Your task to perform on an android device: toggle notifications settings in the gmail app Image 0: 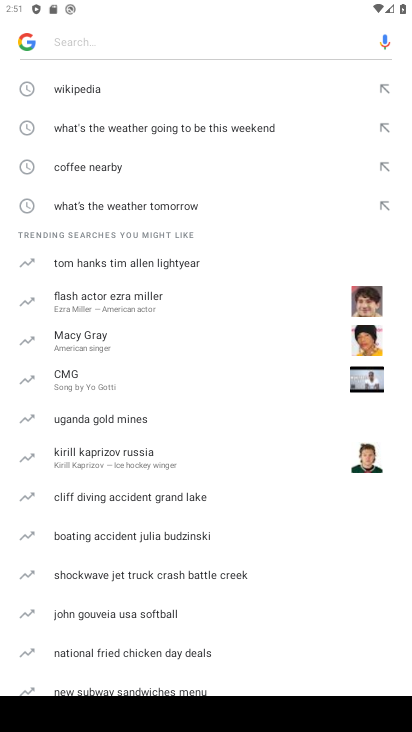
Step 0: press home button
Your task to perform on an android device: toggle notifications settings in the gmail app Image 1: 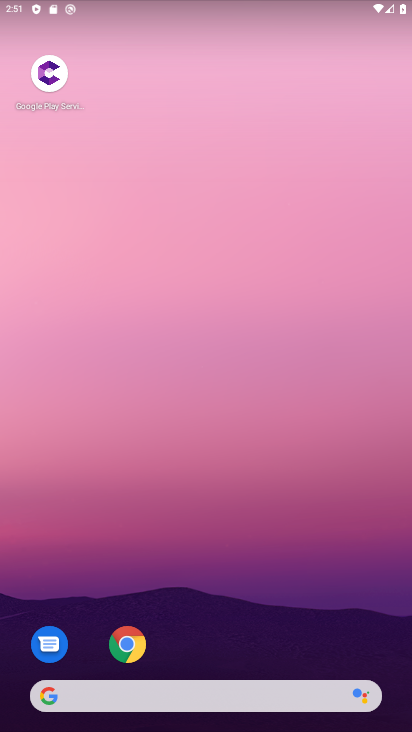
Step 1: drag from (241, 331) to (198, 23)
Your task to perform on an android device: toggle notifications settings in the gmail app Image 2: 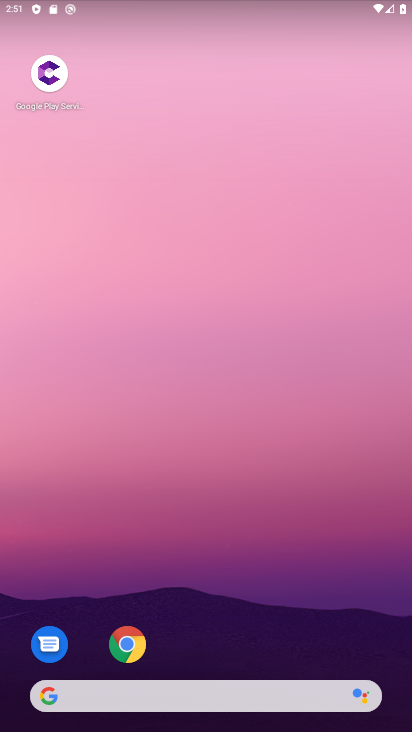
Step 2: drag from (217, 505) to (235, 24)
Your task to perform on an android device: toggle notifications settings in the gmail app Image 3: 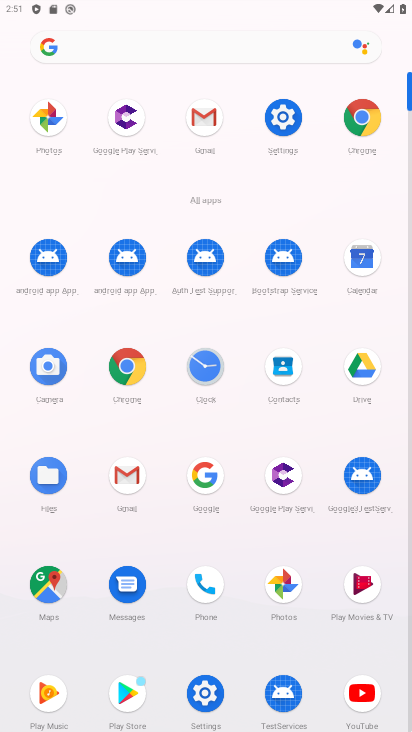
Step 3: click (200, 115)
Your task to perform on an android device: toggle notifications settings in the gmail app Image 4: 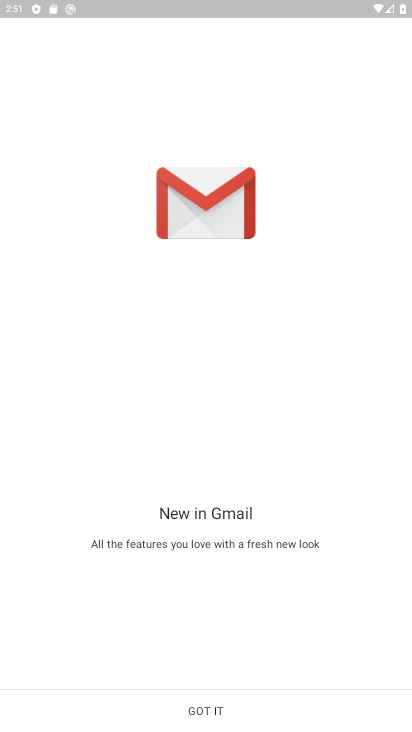
Step 4: click (253, 708)
Your task to perform on an android device: toggle notifications settings in the gmail app Image 5: 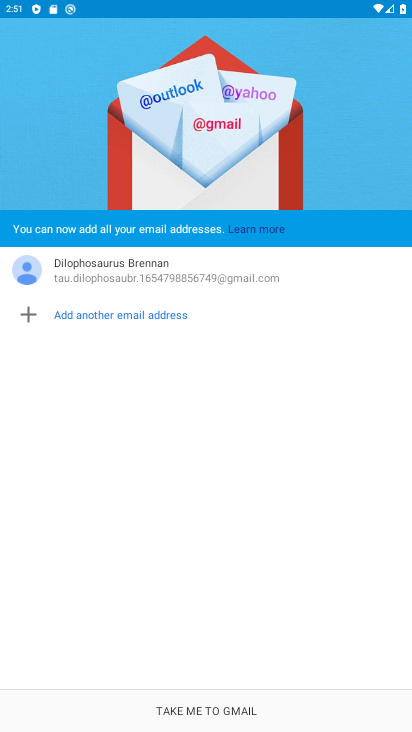
Step 5: click (253, 708)
Your task to perform on an android device: toggle notifications settings in the gmail app Image 6: 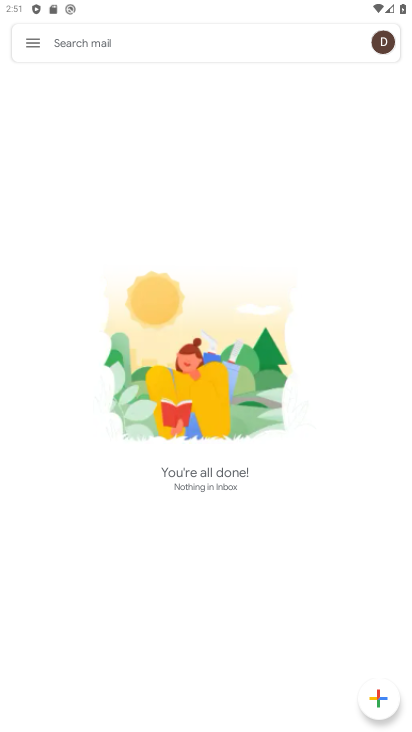
Step 6: click (30, 39)
Your task to perform on an android device: toggle notifications settings in the gmail app Image 7: 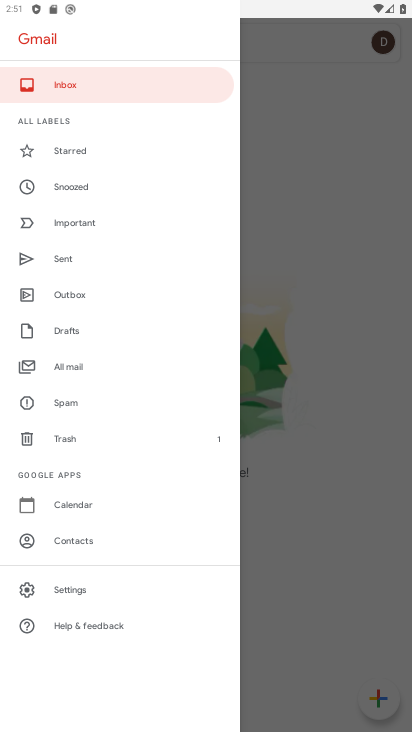
Step 7: click (76, 589)
Your task to perform on an android device: toggle notifications settings in the gmail app Image 8: 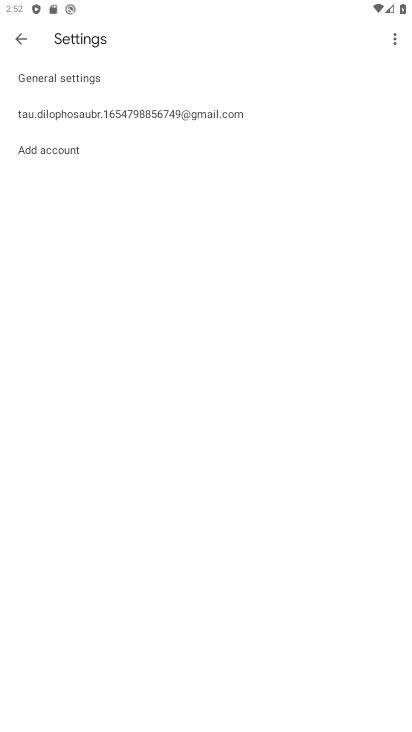
Step 8: click (136, 115)
Your task to perform on an android device: toggle notifications settings in the gmail app Image 9: 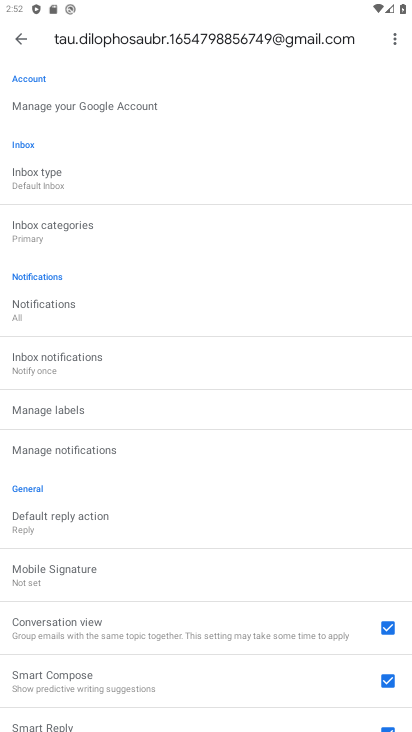
Step 9: click (52, 306)
Your task to perform on an android device: toggle notifications settings in the gmail app Image 10: 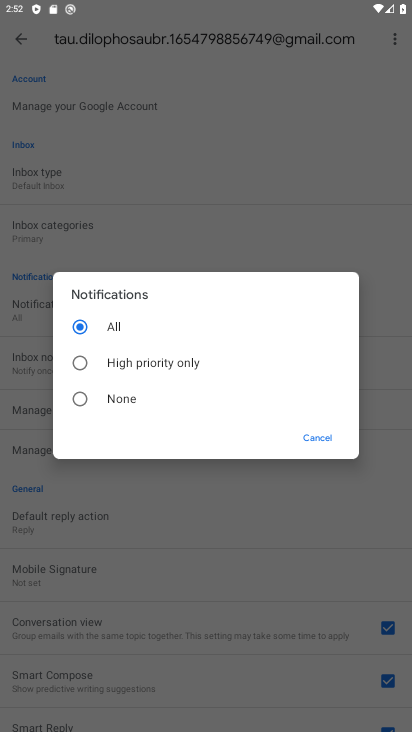
Step 10: click (75, 394)
Your task to perform on an android device: toggle notifications settings in the gmail app Image 11: 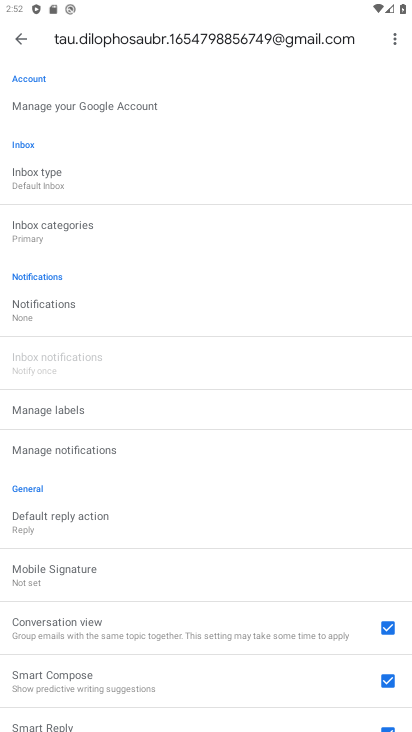
Step 11: task complete